Your task to perform on an android device: Search for hotels in Seattle Image 0: 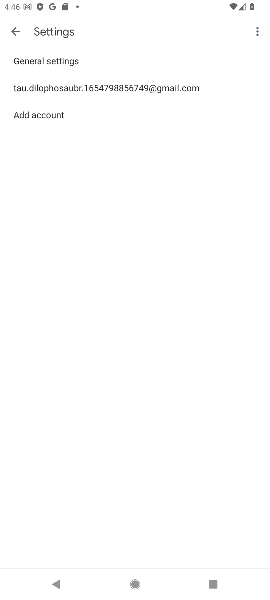
Step 0: press home button
Your task to perform on an android device: Search for hotels in Seattle Image 1: 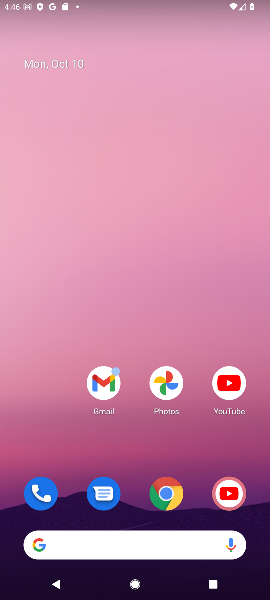
Step 1: click (149, 549)
Your task to perform on an android device: Search for hotels in Seattle Image 2: 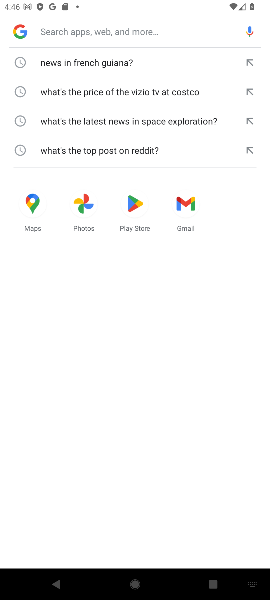
Step 2: type "hotels in Seattle"
Your task to perform on an android device: Search for hotels in Seattle Image 3: 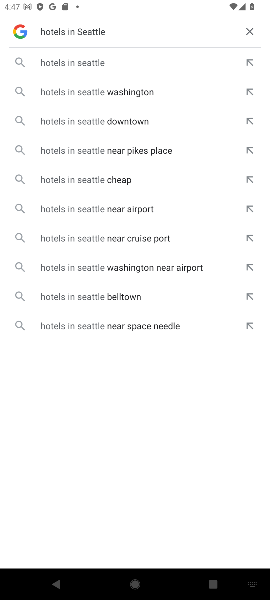
Step 3: click (96, 72)
Your task to perform on an android device: Search for hotels in Seattle Image 4: 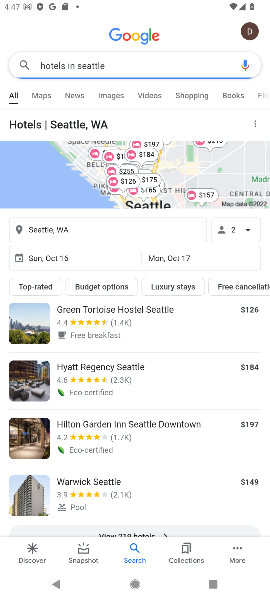
Step 4: task complete